Your task to perform on an android device: Open my contact list Image 0: 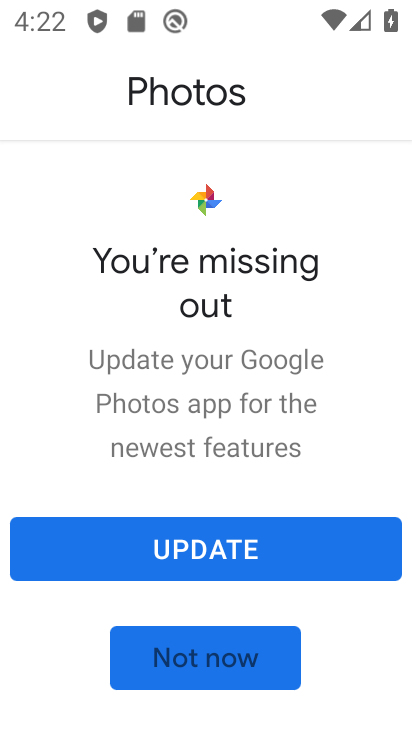
Step 0: press back button
Your task to perform on an android device: Open my contact list Image 1: 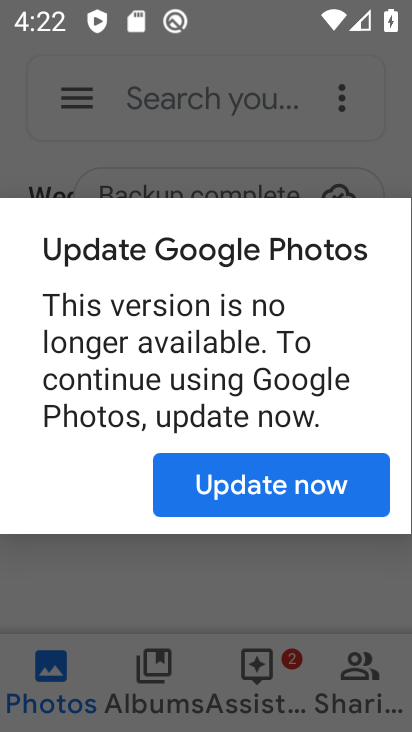
Step 1: press home button
Your task to perform on an android device: Open my contact list Image 2: 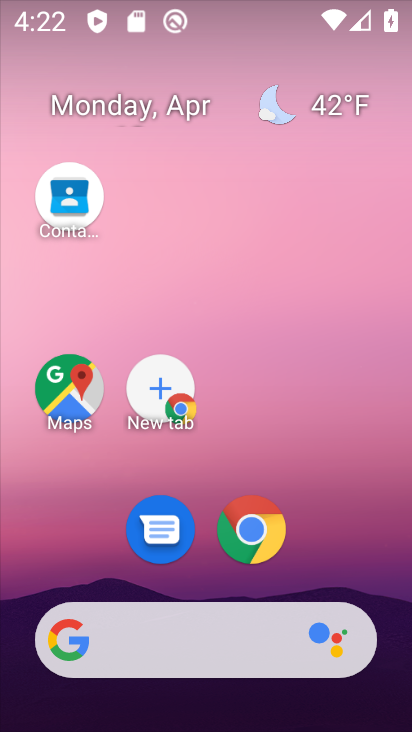
Step 2: drag from (192, 490) to (334, 40)
Your task to perform on an android device: Open my contact list Image 3: 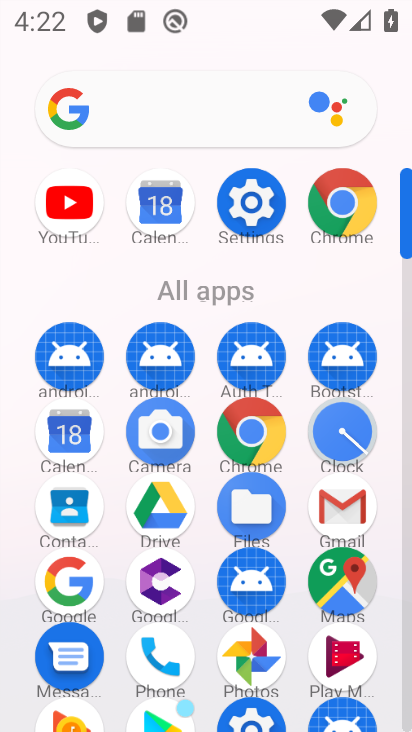
Step 3: click (64, 501)
Your task to perform on an android device: Open my contact list Image 4: 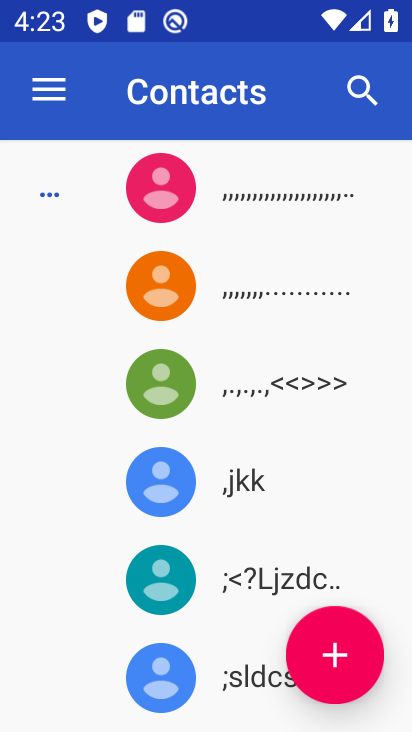
Step 4: task complete